Your task to perform on an android device: What's the weather? Image 0: 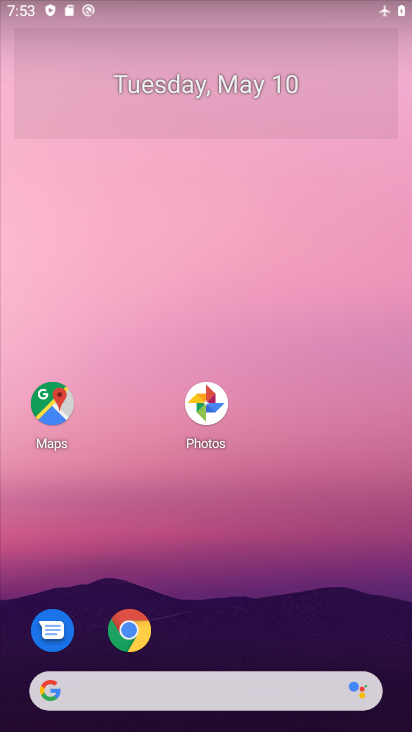
Step 0: click (206, 677)
Your task to perform on an android device: What's the weather? Image 1: 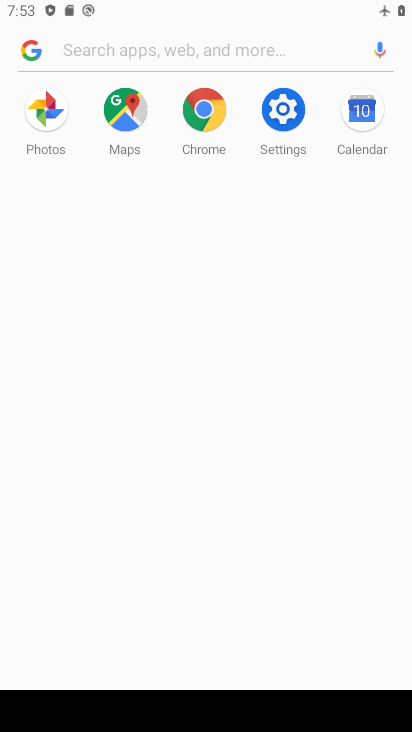
Step 1: task complete